Your task to perform on an android device: Go to ESPN.com Image 0: 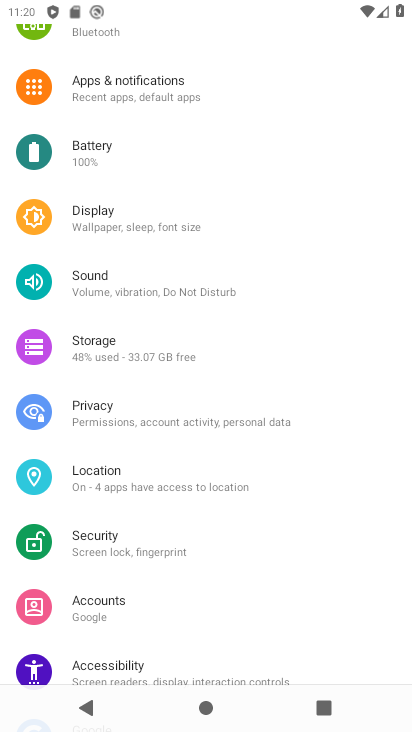
Step 0: press home button
Your task to perform on an android device: Go to ESPN.com Image 1: 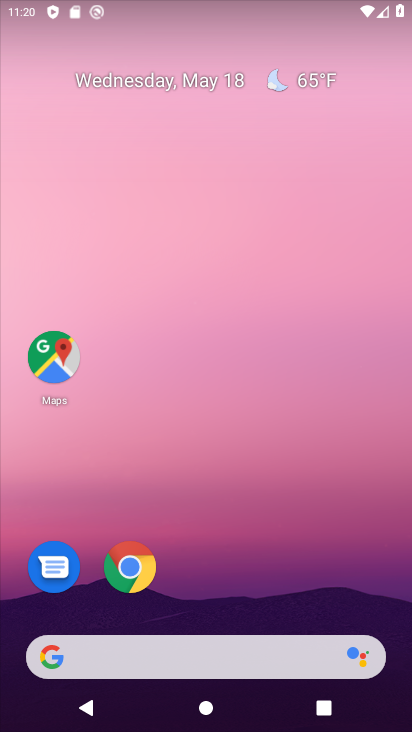
Step 1: click (131, 568)
Your task to perform on an android device: Go to ESPN.com Image 2: 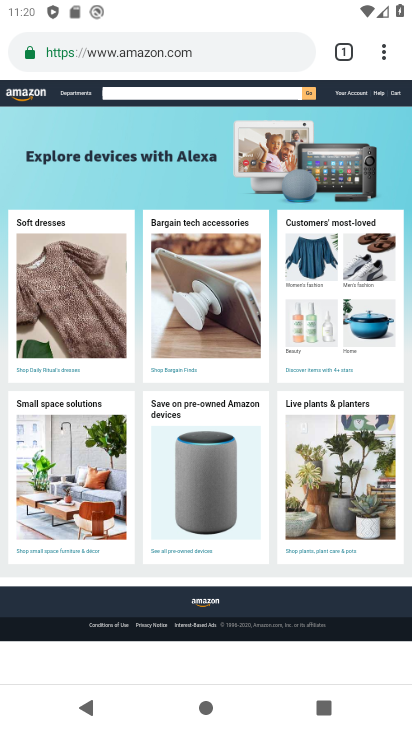
Step 2: click (345, 50)
Your task to perform on an android device: Go to ESPN.com Image 3: 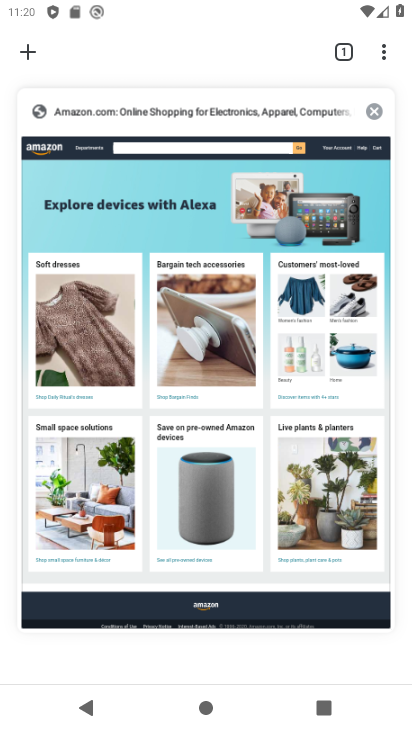
Step 3: click (24, 53)
Your task to perform on an android device: Go to ESPN.com Image 4: 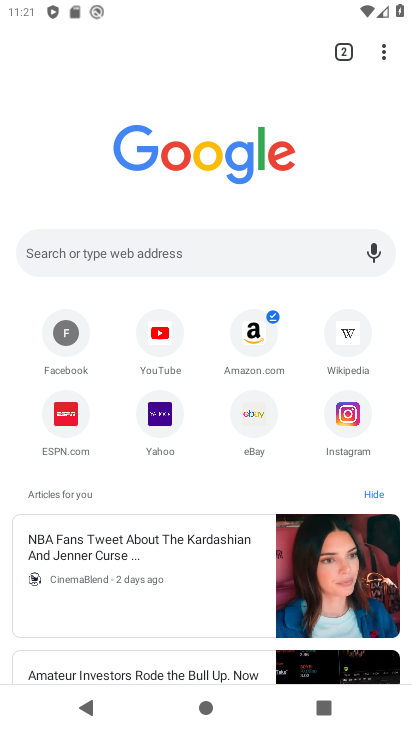
Step 4: click (71, 412)
Your task to perform on an android device: Go to ESPN.com Image 5: 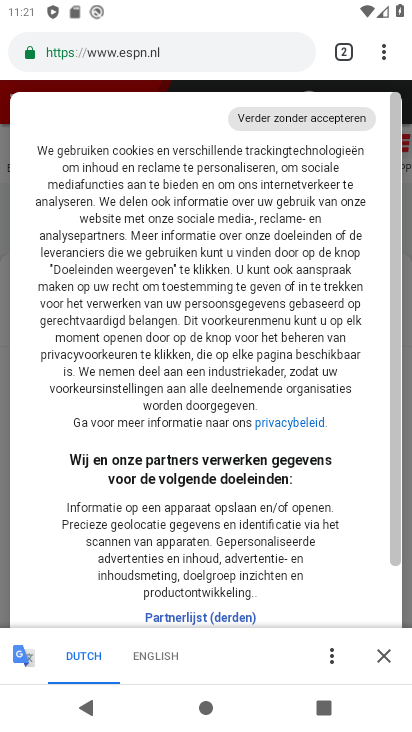
Step 5: task complete